Your task to perform on an android device: change alarm snooze length Image 0: 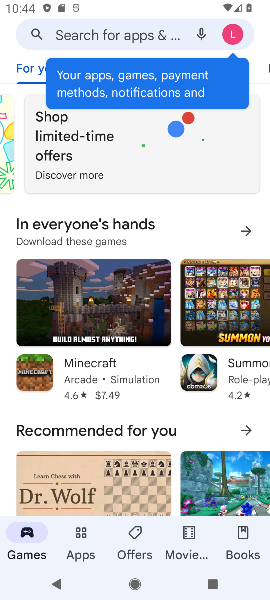
Step 0: press back button
Your task to perform on an android device: change alarm snooze length Image 1: 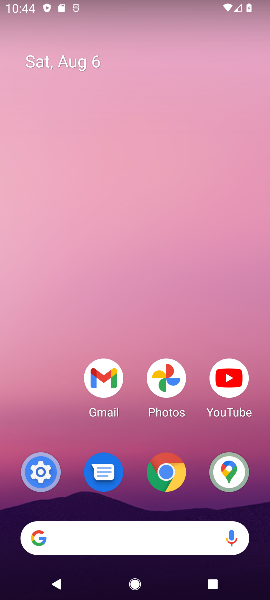
Step 1: drag from (39, 23) to (136, 96)
Your task to perform on an android device: change alarm snooze length Image 2: 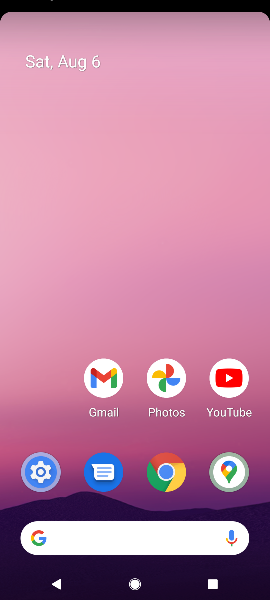
Step 2: drag from (154, 395) to (87, 100)
Your task to perform on an android device: change alarm snooze length Image 3: 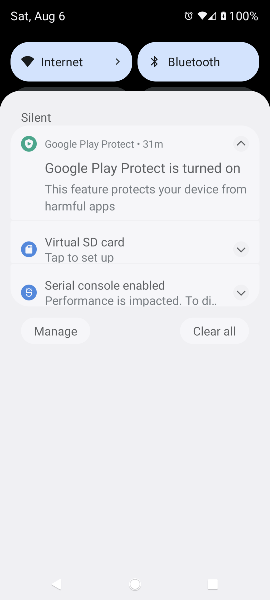
Step 3: drag from (165, 397) to (123, 79)
Your task to perform on an android device: change alarm snooze length Image 4: 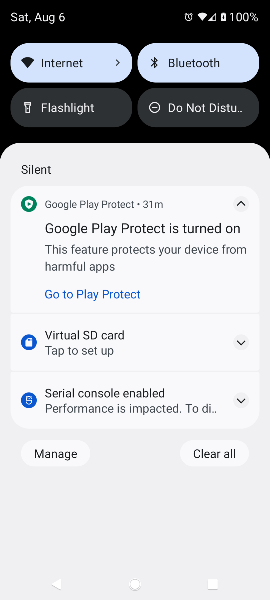
Step 4: drag from (119, 465) to (104, 205)
Your task to perform on an android device: change alarm snooze length Image 5: 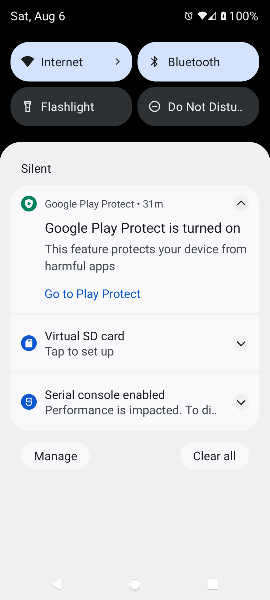
Step 5: press back button
Your task to perform on an android device: change alarm snooze length Image 6: 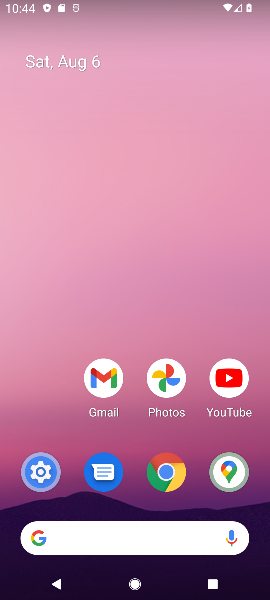
Step 6: click (141, 193)
Your task to perform on an android device: change alarm snooze length Image 7: 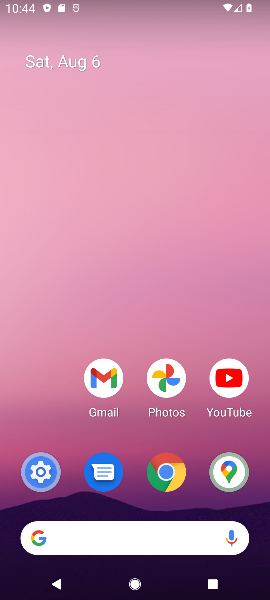
Step 7: drag from (107, 419) to (79, 207)
Your task to perform on an android device: change alarm snooze length Image 8: 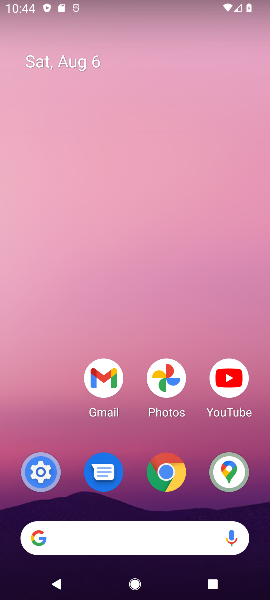
Step 8: drag from (168, 447) to (89, 86)
Your task to perform on an android device: change alarm snooze length Image 9: 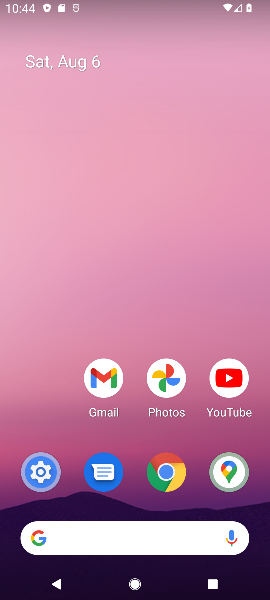
Step 9: drag from (120, 438) to (97, 140)
Your task to perform on an android device: change alarm snooze length Image 10: 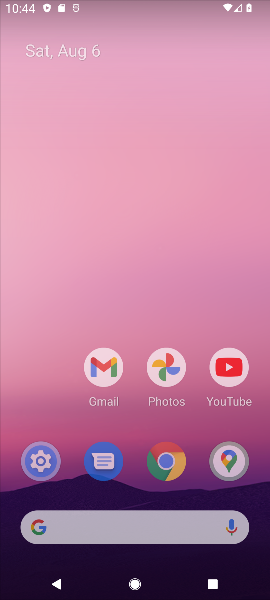
Step 10: drag from (172, 378) to (118, 82)
Your task to perform on an android device: change alarm snooze length Image 11: 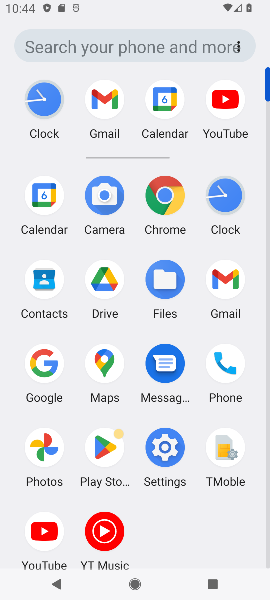
Step 11: drag from (193, 403) to (96, 58)
Your task to perform on an android device: change alarm snooze length Image 12: 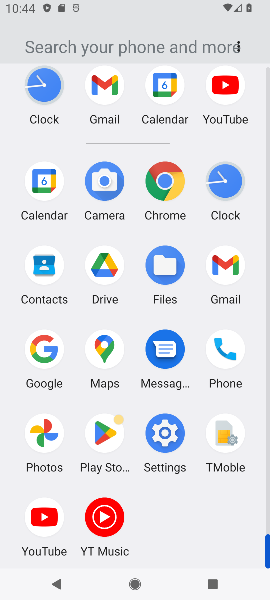
Step 12: click (219, 178)
Your task to perform on an android device: change alarm snooze length Image 13: 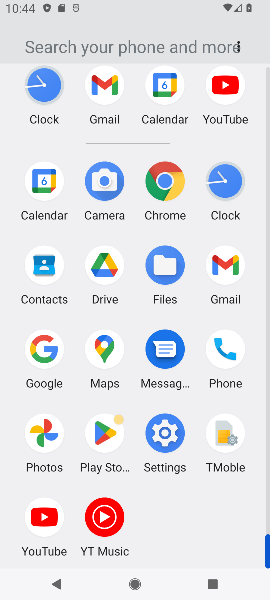
Step 13: click (219, 178)
Your task to perform on an android device: change alarm snooze length Image 14: 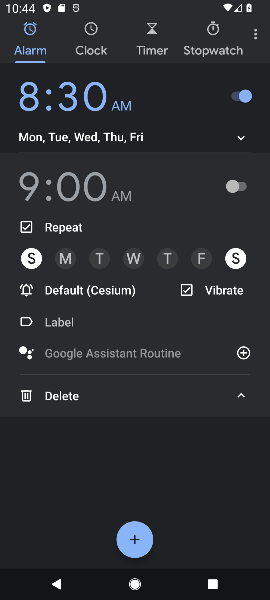
Step 14: click (251, 27)
Your task to perform on an android device: change alarm snooze length Image 15: 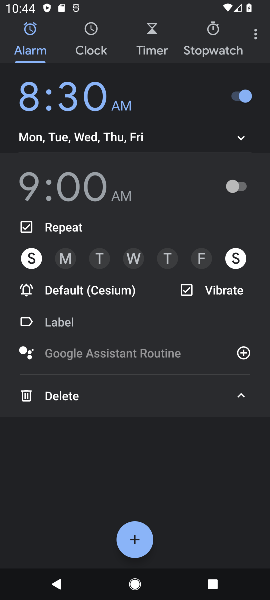
Step 15: click (251, 27)
Your task to perform on an android device: change alarm snooze length Image 16: 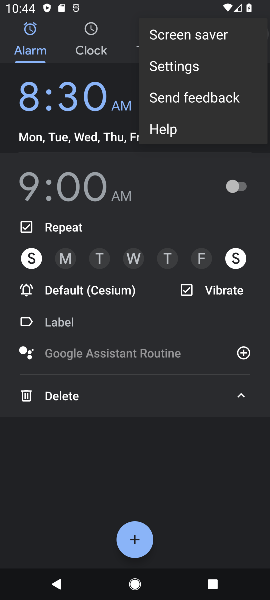
Step 16: click (252, 29)
Your task to perform on an android device: change alarm snooze length Image 17: 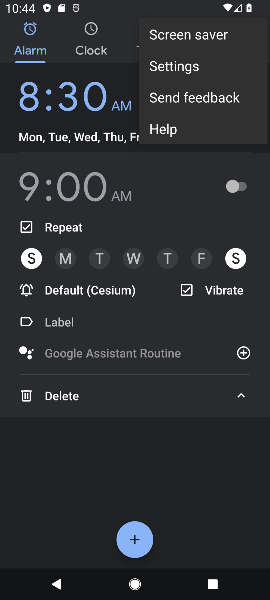
Step 17: click (182, 72)
Your task to perform on an android device: change alarm snooze length Image 18: 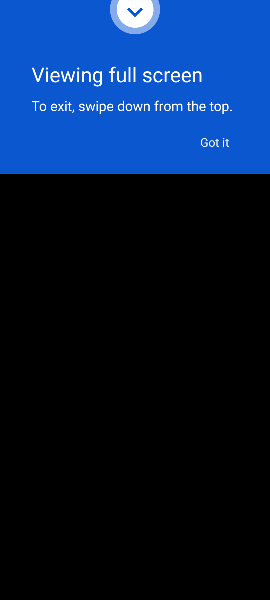
Step 18: click (211, 121)
Your task to perform on an android device: change alarm snooze length Image 19: 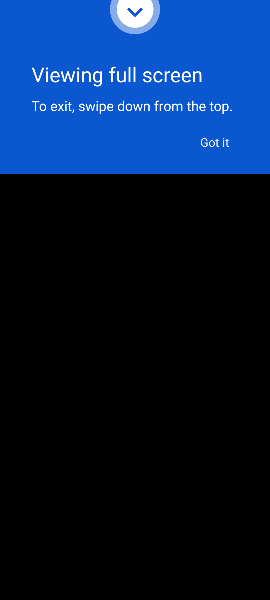
Step 19: click (214, 144)
Your task to perform on an android device: change alarm snooze length Image 20: 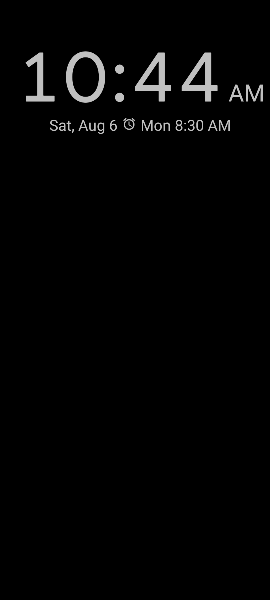
Step 20: click (218, 169)
Your task to perform on an android device: change alarm snooze length Image 21: 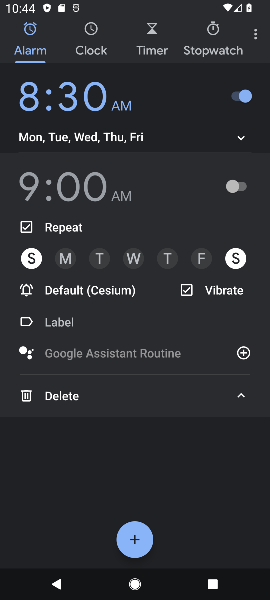
Step 21: click (257, 30)
Your task to perform on an android device: change alarm snooze length Image 22: 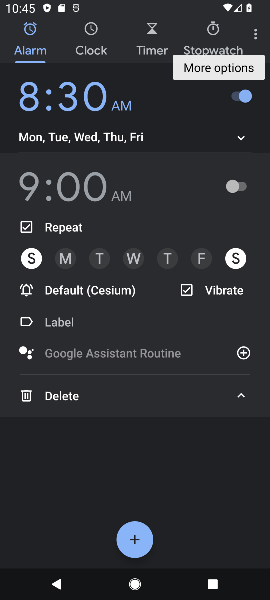
Step 22: click (252, 35)
Your task to perform on an android device: change alarm snooze length Image 23: 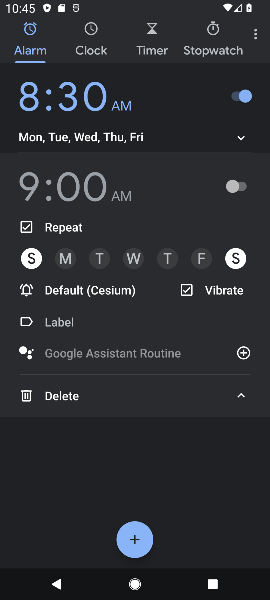
Step 23: click (252, 35)
Your task to perform on an android device: change alarm snooze length Image 24: 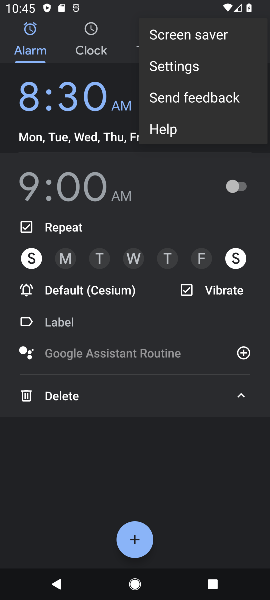
Step 24: click (174, 71)
Your task to perform on an android device: change alarm snooze length Image 25: 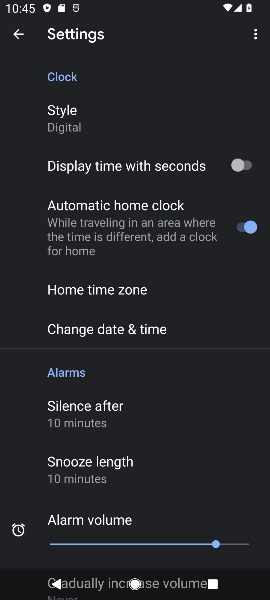
Step 25: click (83, 473)
Your task to perform on an android device: change alarm snooze length Image 26: 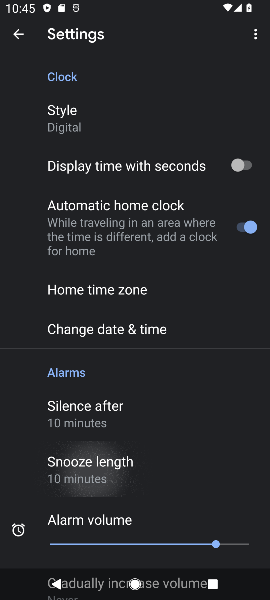
Step 26: click (82, 473)
Your task to perform on an android device: change alarm snooze length Image 27: 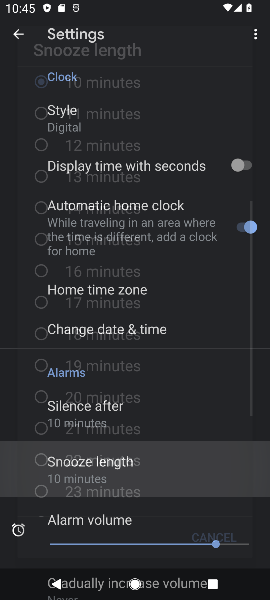
Step 27: click (82, 473)
Your task to perform on an android device: change alarm snooze length Image 28: 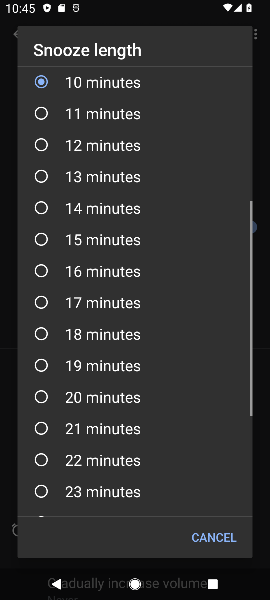
Step 28: click (83, 479)
Your task to perform on an android device: change alarm snooze length Image 29: 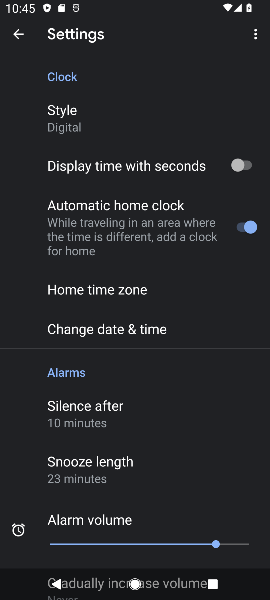
Step 29: task complete